Your task to perform on an android device: What time is it in Moscow? Image 0: 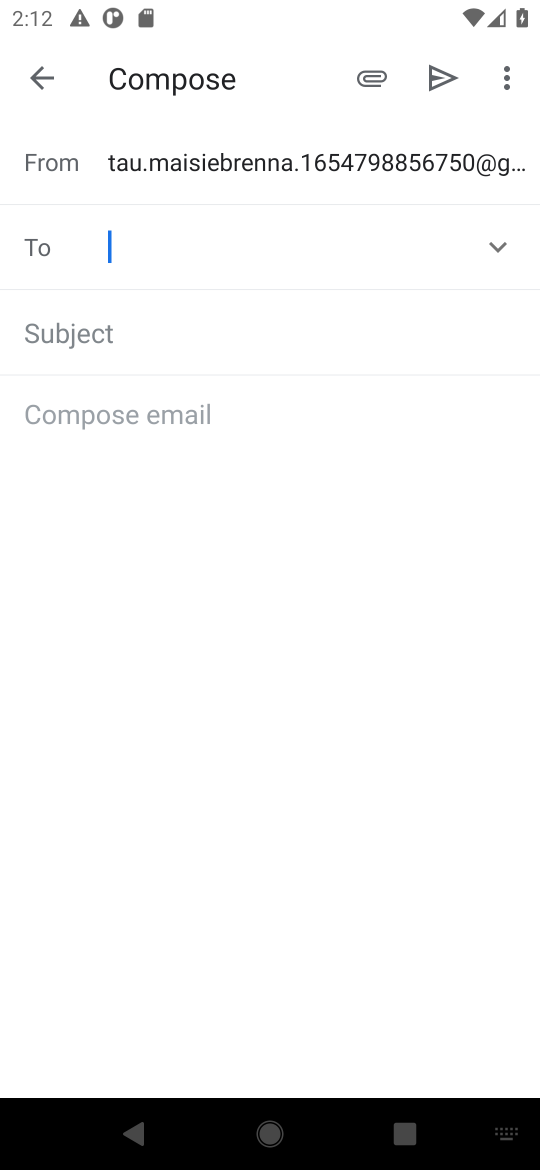
Step 0: press home button
Your task to perform on an android device: What time is it in Moscow? Image 1: 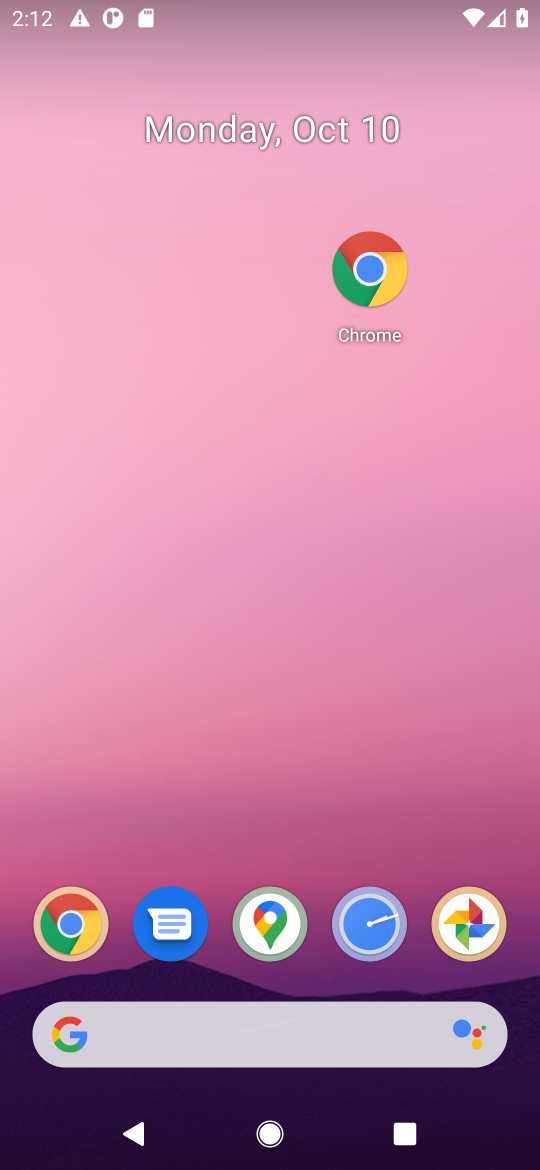
Step 1: drag from (300, 846) to (350, 57)
Your task to perform on an android device: What time is it in Moscow? Image 2: 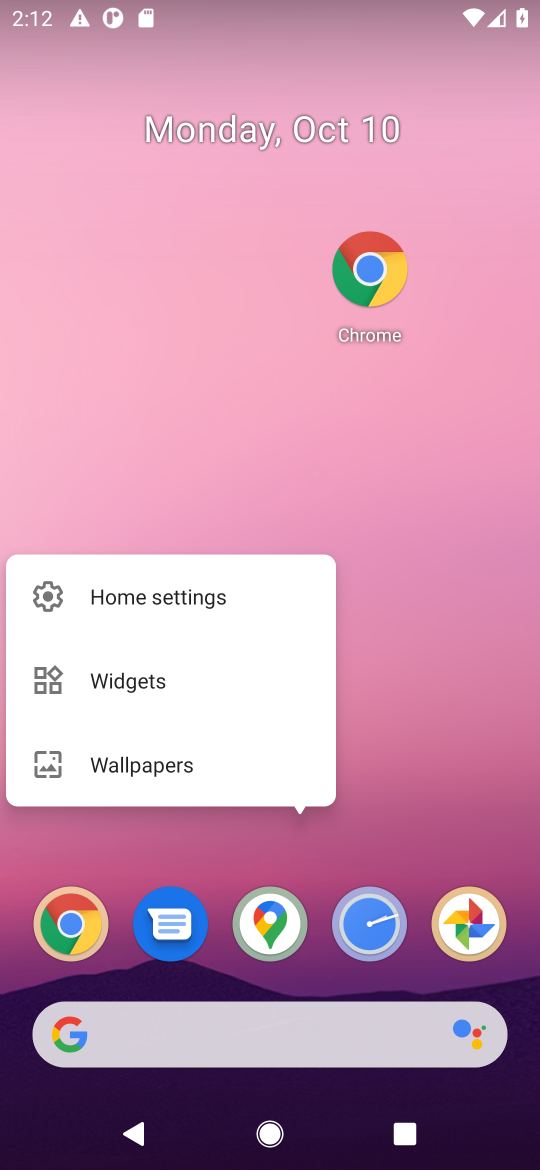
Step 2: click (430, 778)
Your task to perform on an android device: What time is it in Moscow? Image 3: 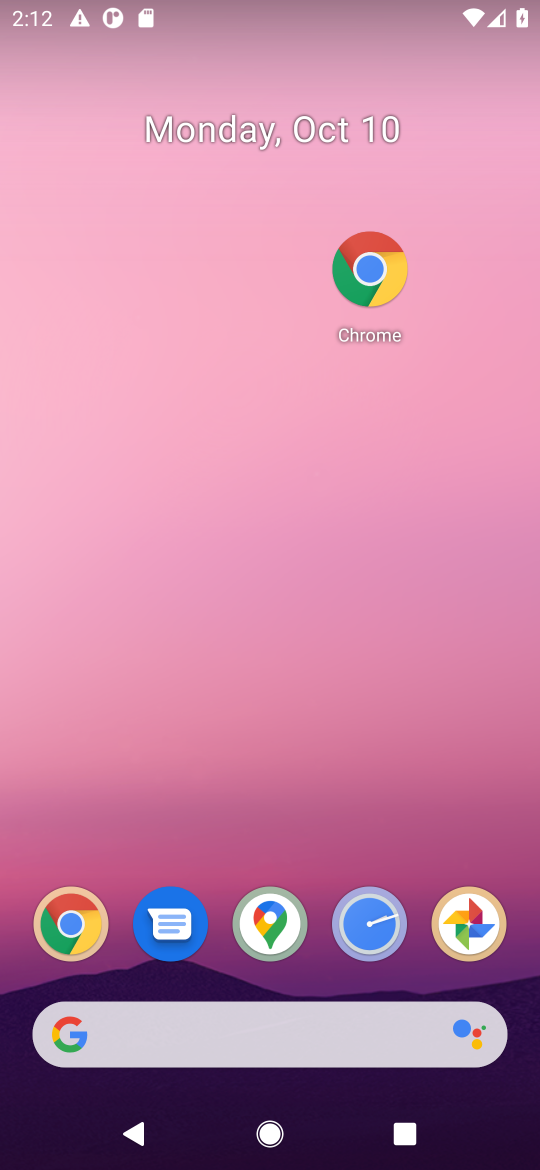
Step 3: drag from (420, 891) to (510, 18)
Your task to perform on an android device: What time is it in Moscow? Image 4: 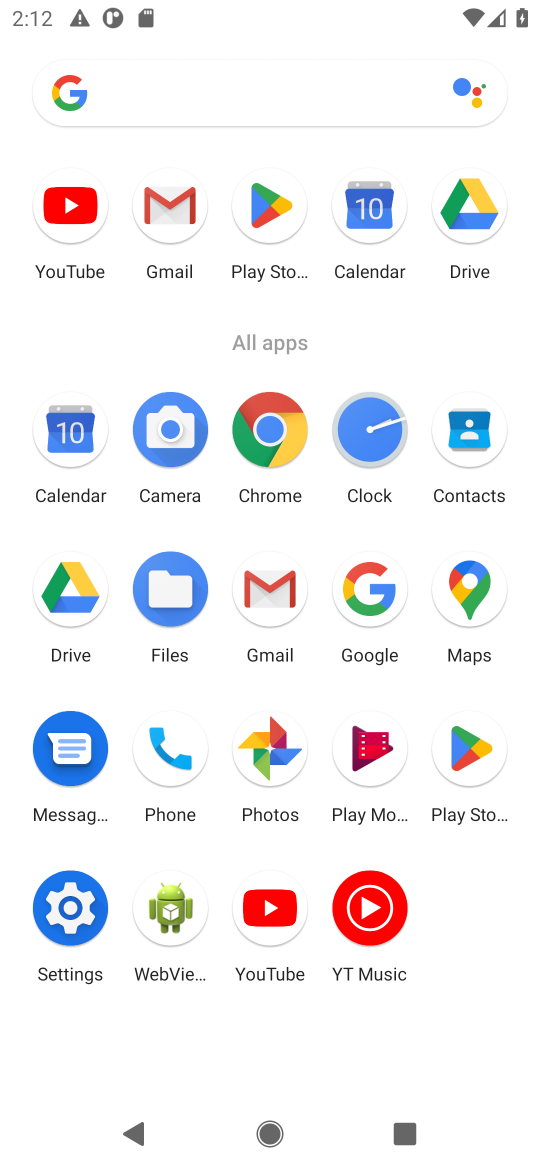
Step 4: click (267, 434)
Your task to perform on an android device: What time is it in Moscow? Image 5: 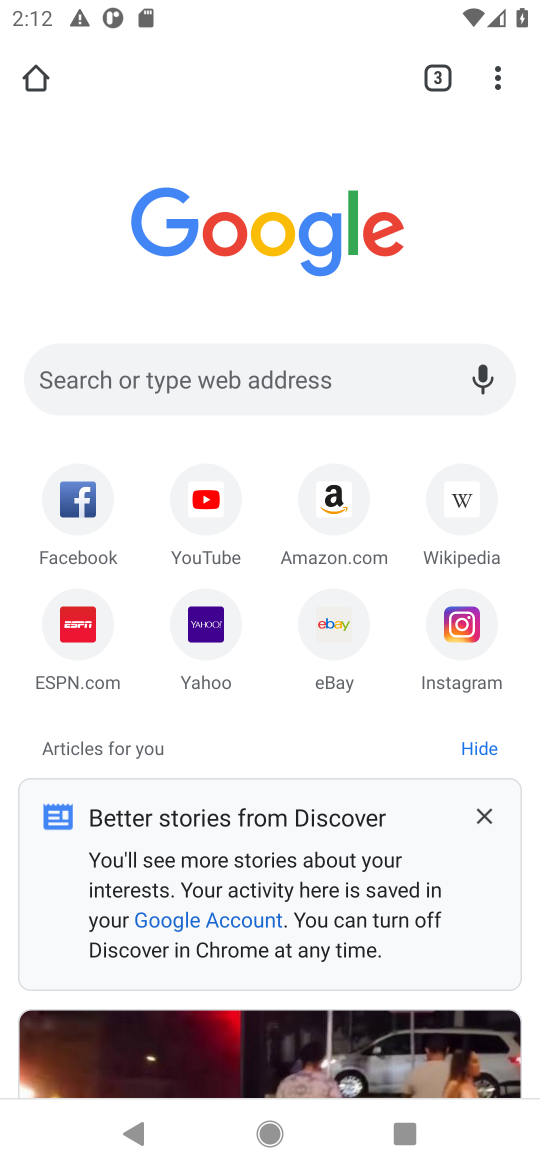
Step 5: click (193, 365)
Your task to perform on an android device: What time is it in Moscow? Image 6: 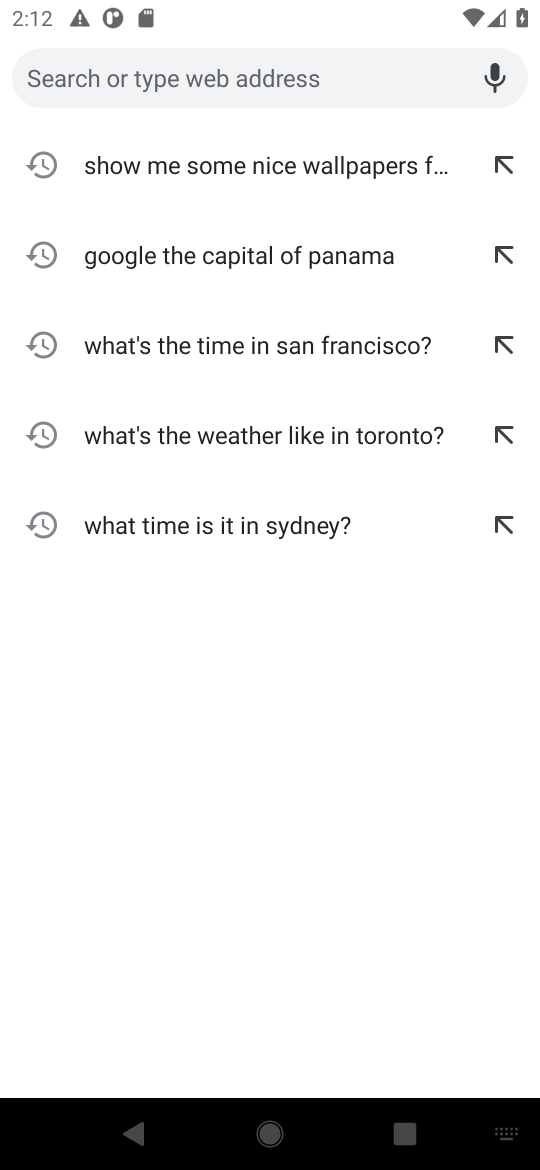
Step 6: type "What time is it in Moscow?"
Your task to perform on an android device: What time is it in Moscow? Image 7: 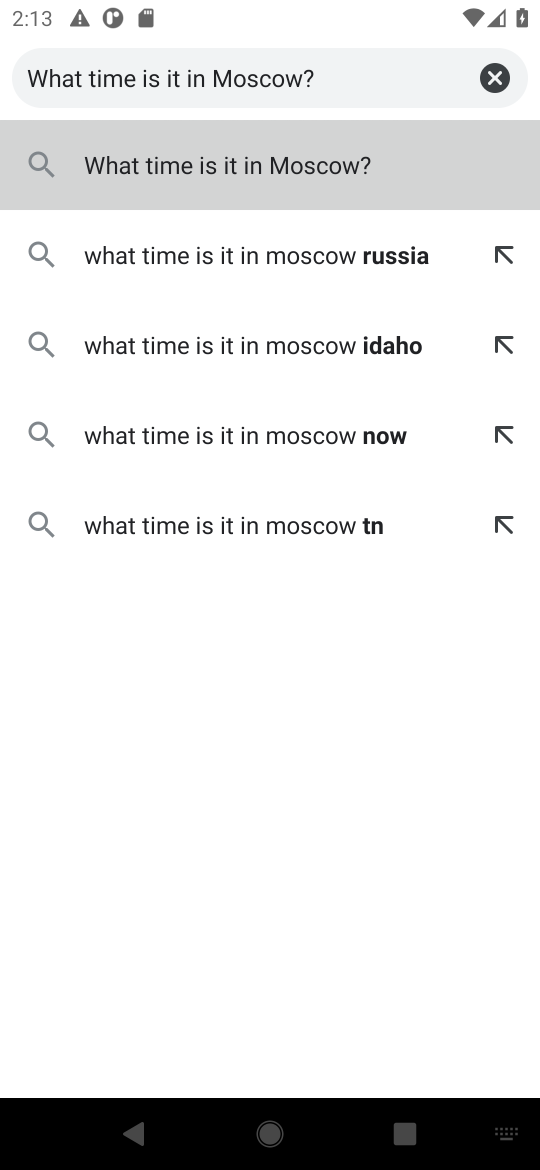
Step 7: click (224, 177)
Your task to perform on an android device: What time is it in Moscow? Image 8: 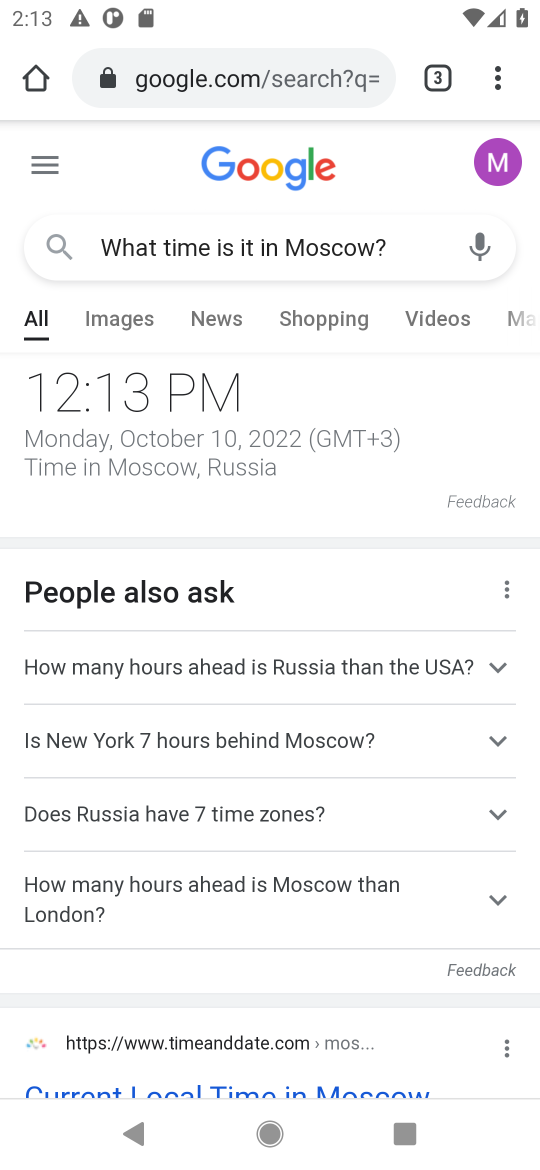
Step 8: task complete